Your task to perform on an android device: change notifications settings Image 0: 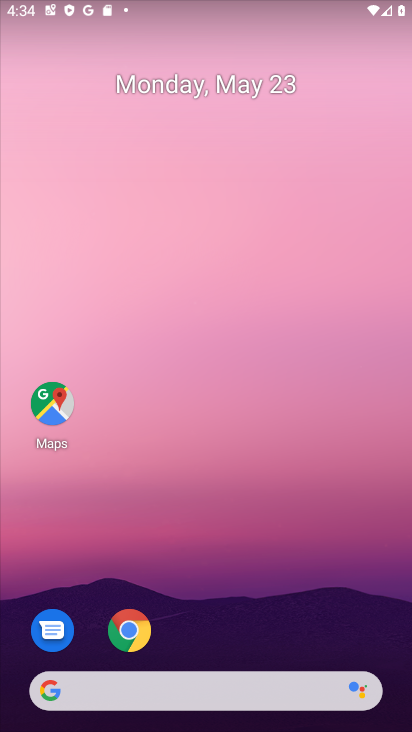
Step 0: drag from (199, 655) to (221, 66)
Your task to perform on an android device: change notifications settings Image 1: 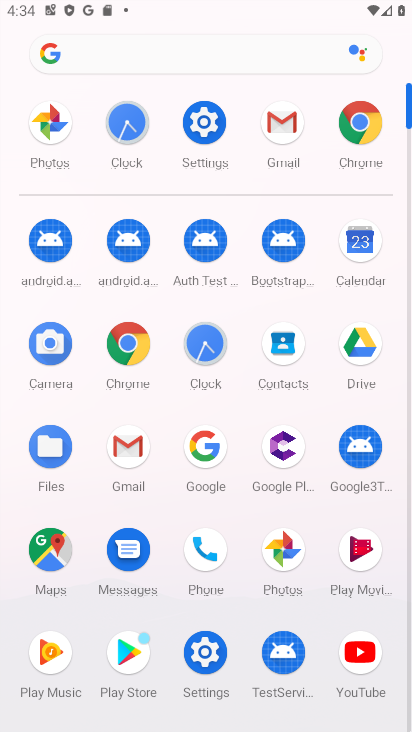
Step 1: click (202, 118)
Your task to perform on an android device: change notifications settings Image 2: 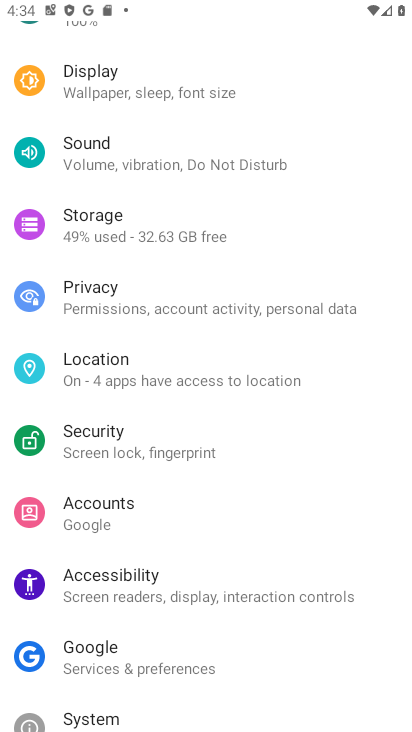
Step 2: drag from (156, 147) to (152, 540)
Your task to perform on an android device: change notifications settings Image 3: 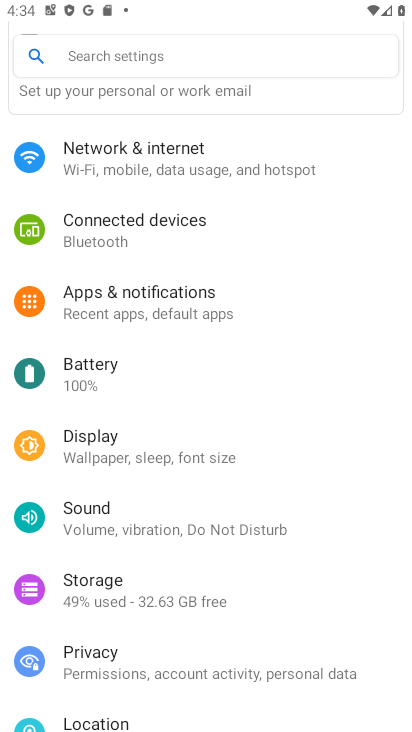
Step 3: click (243, 298)
Your task to perform on an android device: change notifications settings Image 4: 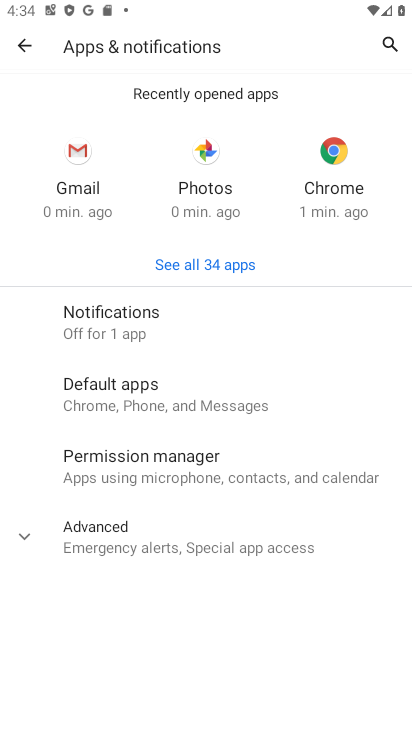
Step 4: click (179, 323)
Your task to perform on an android device: change notifications settings Image 5: 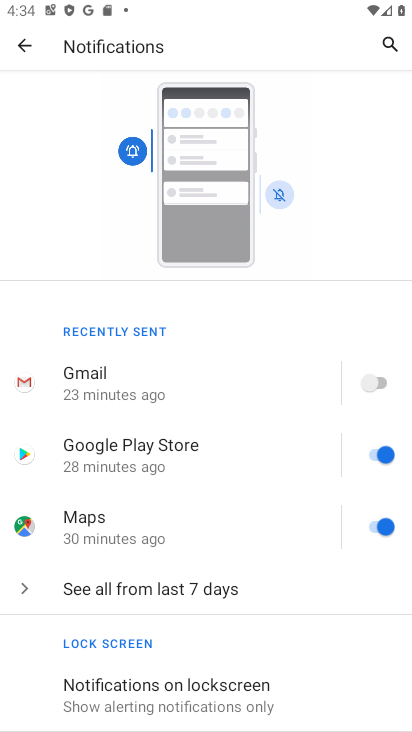
Step 5: drag from (189, 649) to (228, 270)
Your task to perform on an android device: change notifications settings Image 6: 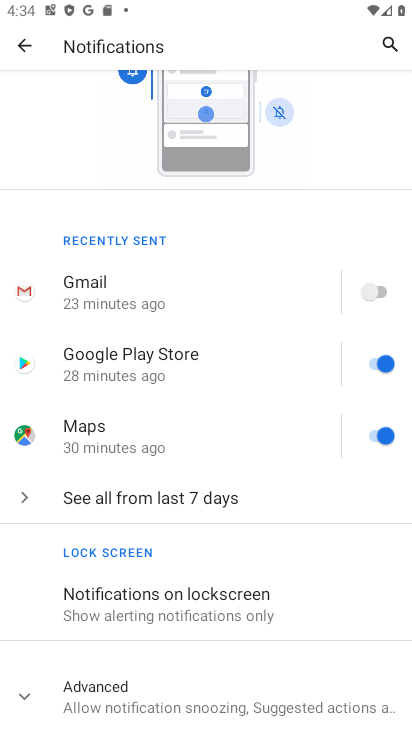
Step 6: click (374, 362)
Your task to perform on an android device: change notifications settings Image 7: 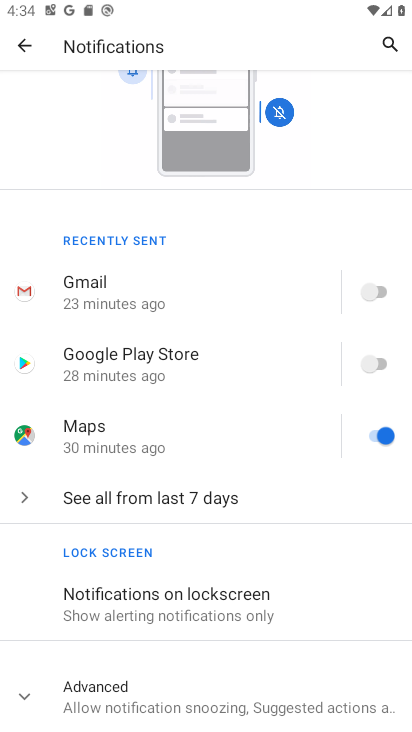
Step 7: click (380, 435)
Your task to perform on an android device: change notifications settings Image 8: 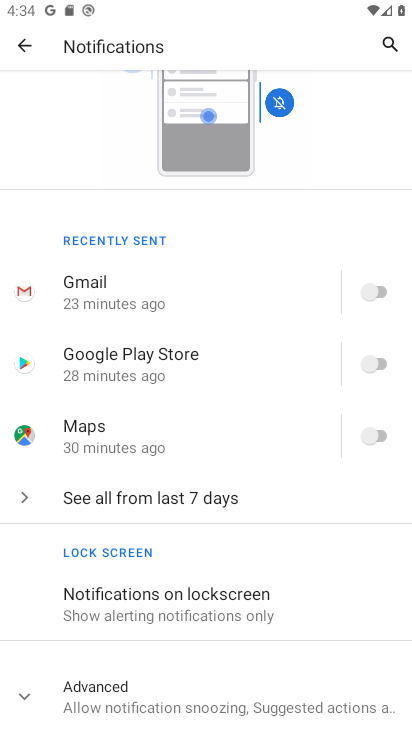
Step 8: click (23, 688)
Your task to perform on an android device: change notifications settings Image 9: 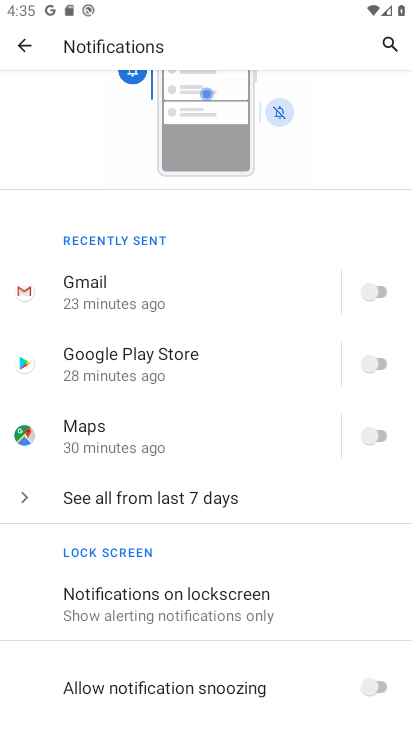
Step 9: drag from (224, 635) to (229, 203)
Your task to perform on an android device: change notifications settings Image 10: 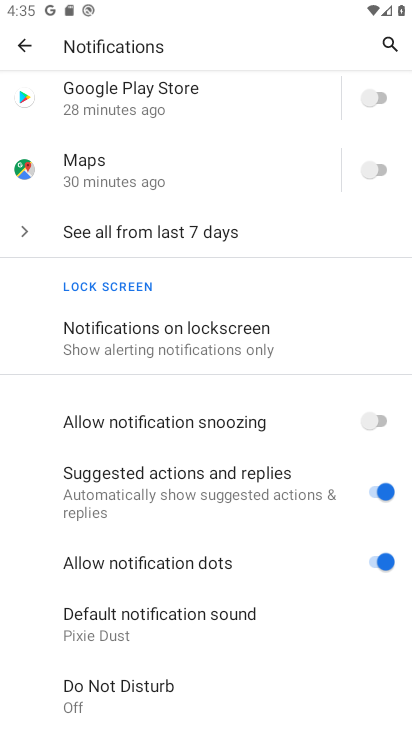
Step 10: click (377, 560)
Your task to perform on an android device: change notifications settings Image 11: 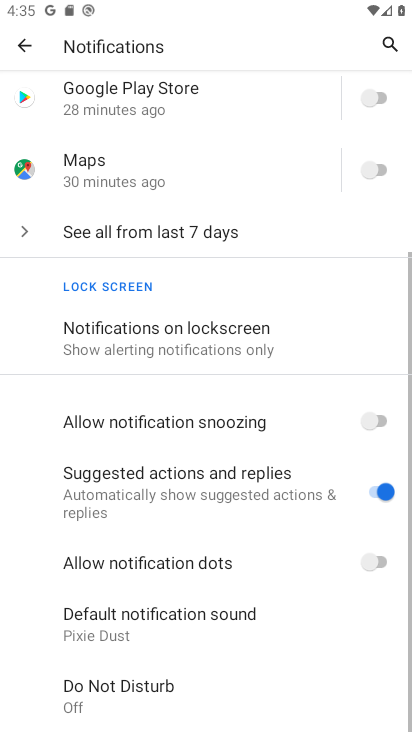
Step 11: click (378, 490)
Your task to perform on an android device: change notifications settings Image 12: 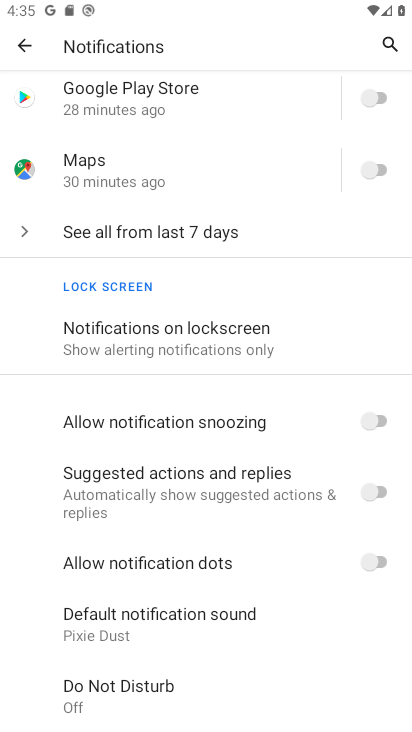
Step 12: task complete